Your task to perform on an android device: change keyboard looks Image 0: 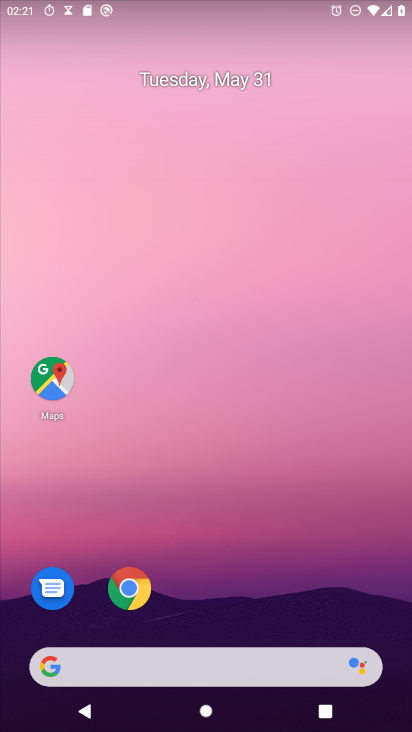
Step 0: drag from (176, 668) to (165, 46)
Your task to perform on an android device: change keyboard looks Image 1: 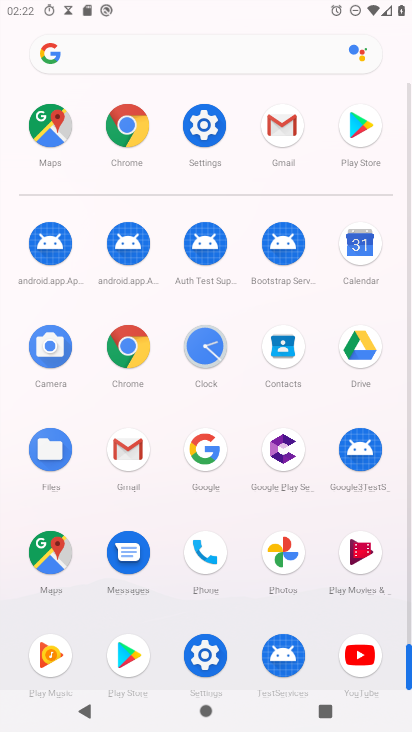
Step 1: click (200, 117)
Your task to perform on an android device: change keyboard looks Image 2: 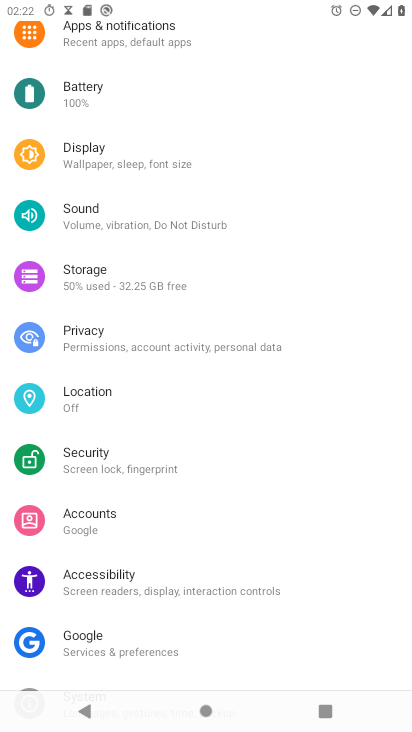
Step 2: drag from (175, 537) to (195, 575)
Your task to perform on an android device: change keyboard looks Image 3: 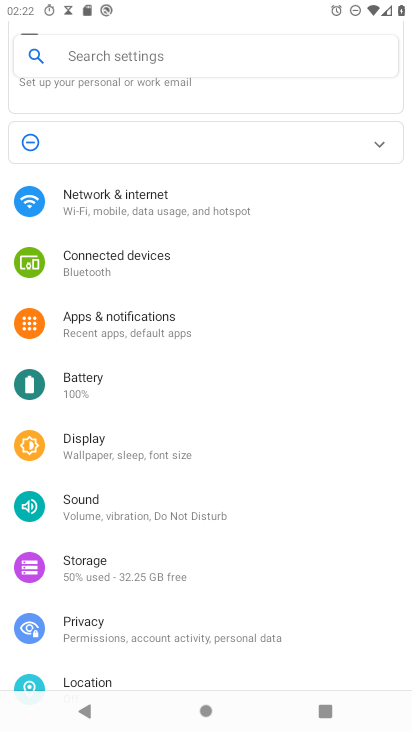
Step 3: drag from (282, 685) to (260, 135)
Your task to perform on an android device: change keyboard looks Image 4: 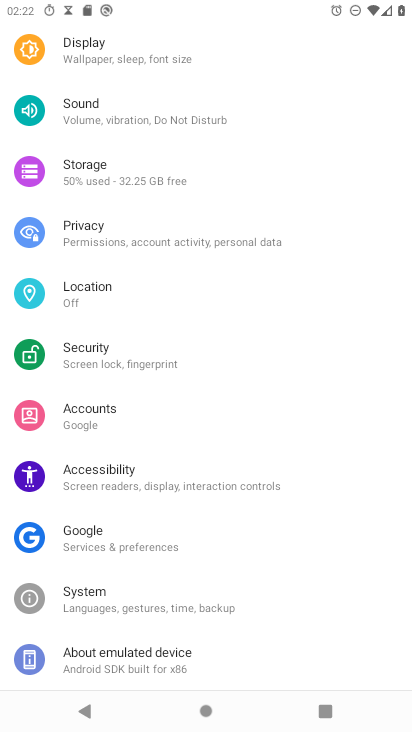
Step 4: click (245, 663)
Your task to perform on an android device: change keyboard looks Image 5: 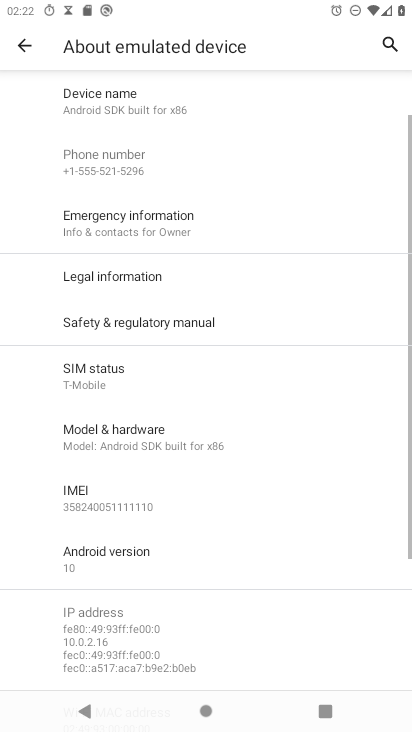
Step 5: press back button
Your task to perform on an android device: change keyboard looks Image 6: 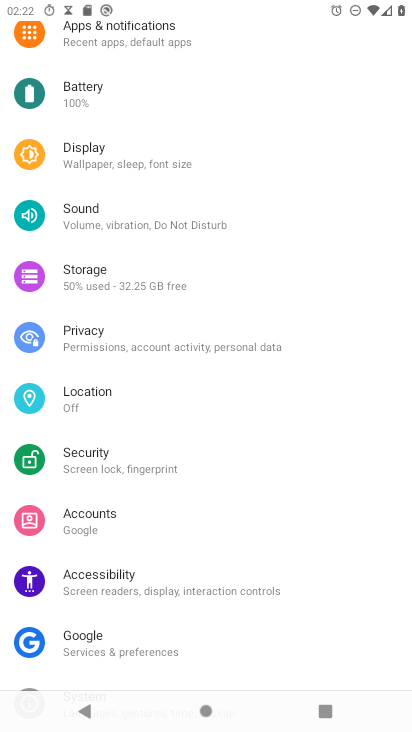
Step 6: drag from (186, 579) to (151, 142)
Your task to perform on an android device: change keyboard looks Image 7: 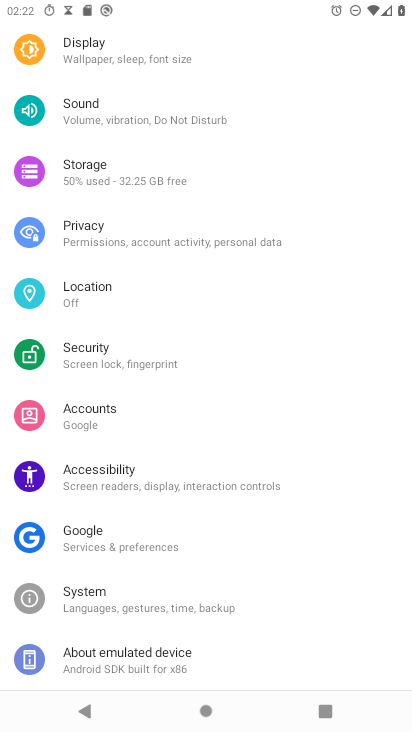
Step 7: click (129, 612)
Your task to perform on an android device: change keyboard looks Image 8: 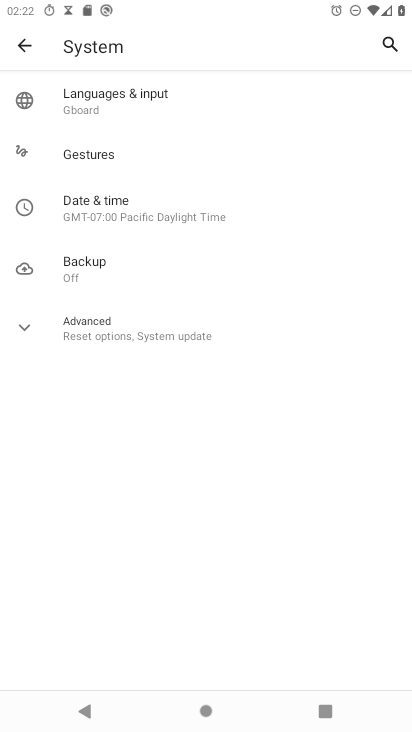
Step 8: click (151, 98)
Your task to perform on an android device: change keyboard looks Image 9: 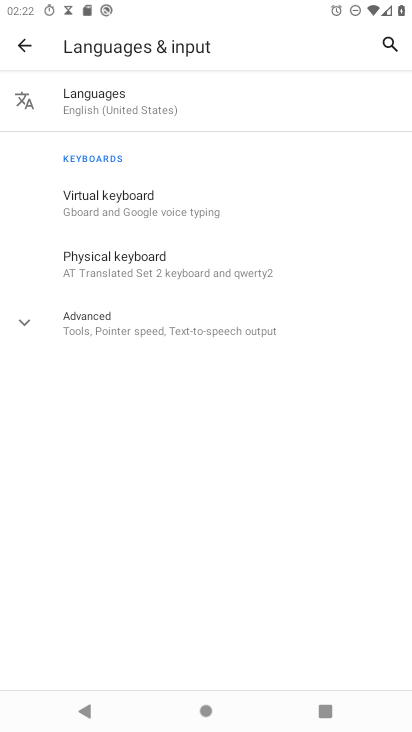
Step 9: click (108, 206)
Your task to perform on an android device: change keyboard looks Image 10: 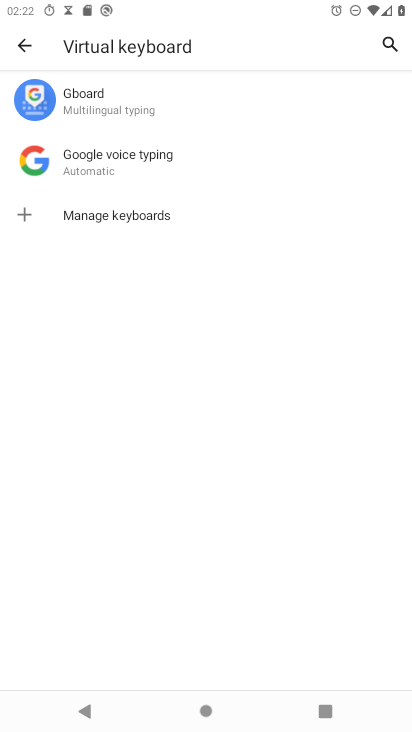
Step 10: click (100, 114)
Your task to perform on an android device: change keyboard looks Image 11: 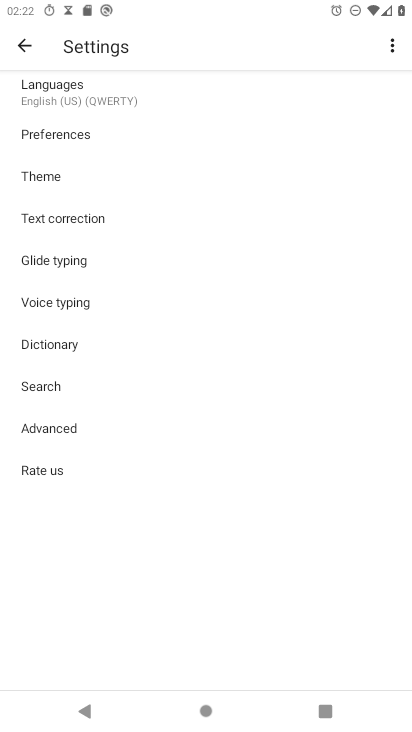
Step 11: click (78, 177)
Your task to perform on an android device: change keyboard looks Image 12: 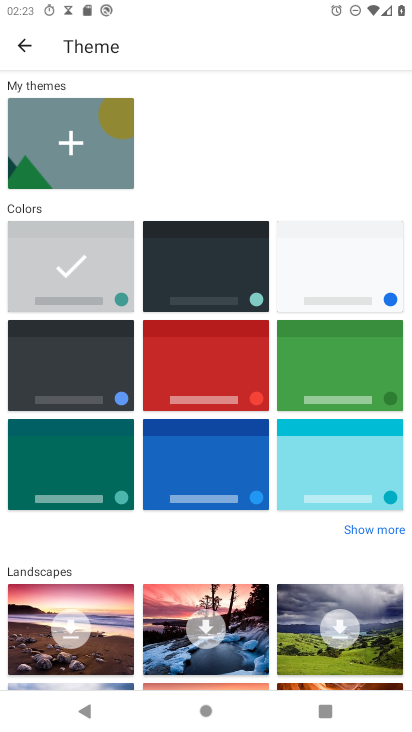
Step 12: click (241, 461)
Your task to perform on an android device: change keyboard looks Image 13: 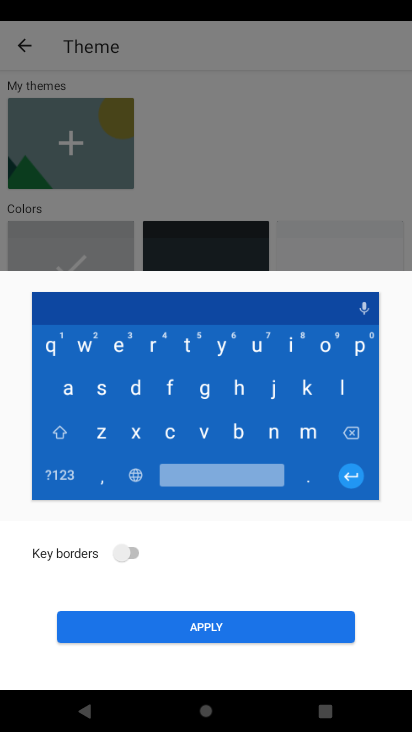
Step 13: click (203, 626)
Your task to perform on an android device: change keyboard looks Image 14: 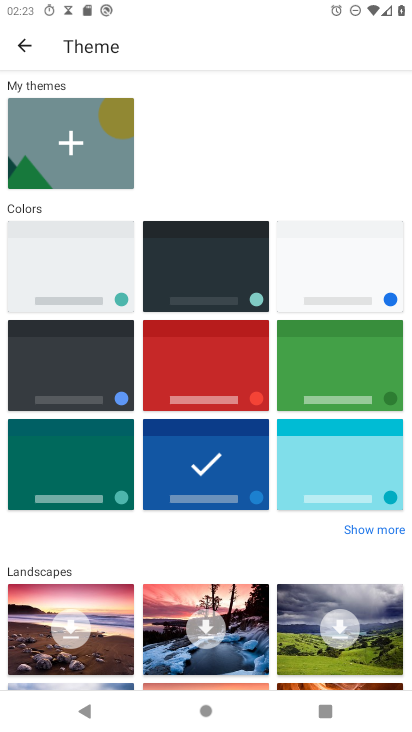
Step 14: task complete